Your task to perform on an android device: Open Amazon Image 0: 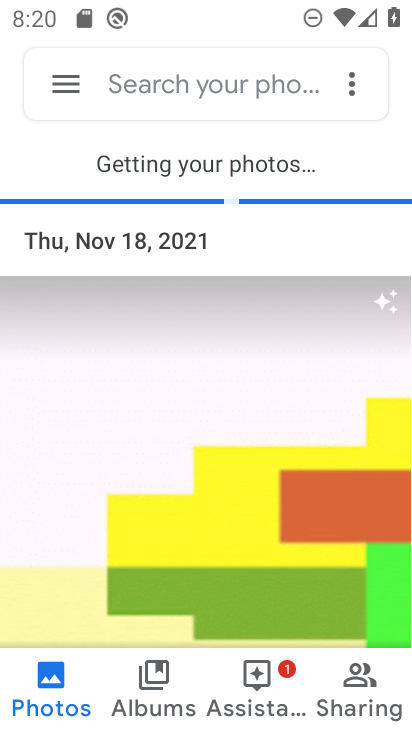
Step 0: press home button
Your task to perform on an android device: Open Amazon Image 1: 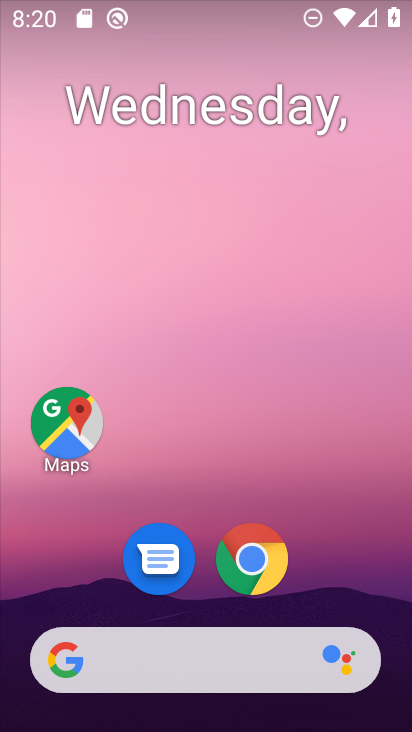
Step 1: drag from (171, 583) to (277, 206)
Your task to perform on an android device: Open Amazon Image 2: 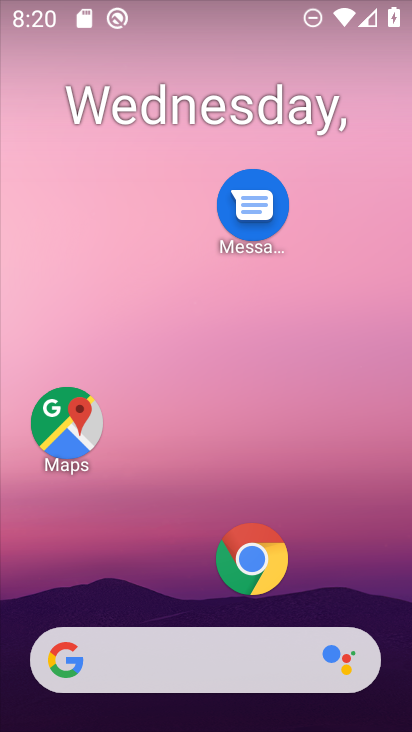
Step 2: drag from (265, 633) to (408, 229)
Your task to perform on an android device: Open Amazon Image 3: 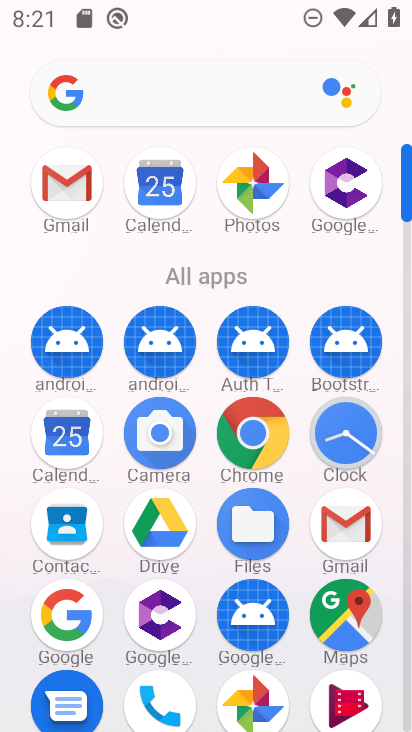
Step 3: click (259, 441)
Your task to perform on an android device: Open Amazon Image 4: 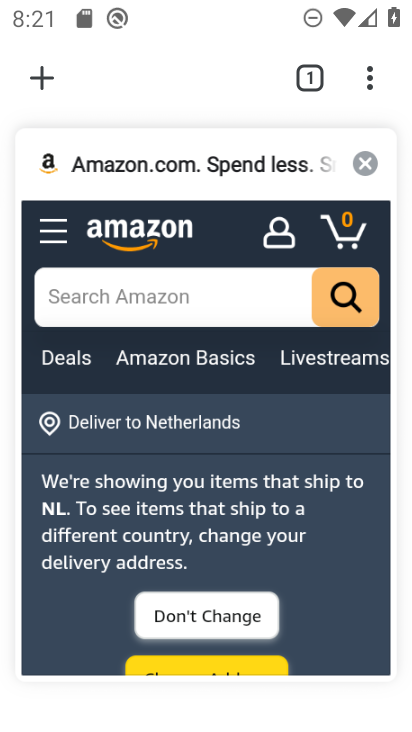
Step 4: click (150, 333)
Your task to perform on an android device: Open Amazon Image 5: 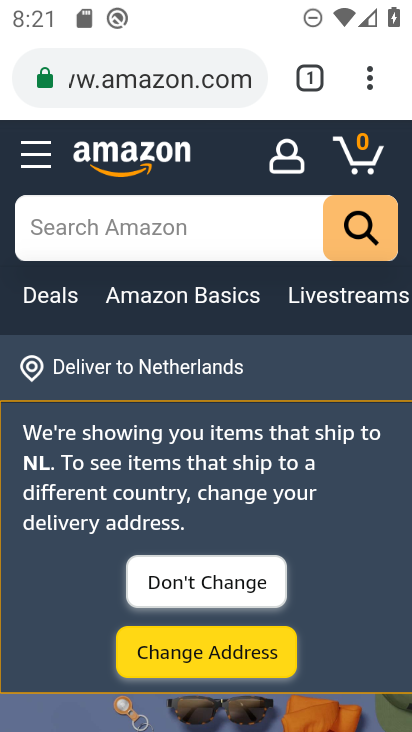
Step 5: task complete